Your task to perform on an android device: Show the shopping cart on walmart. Image 0: 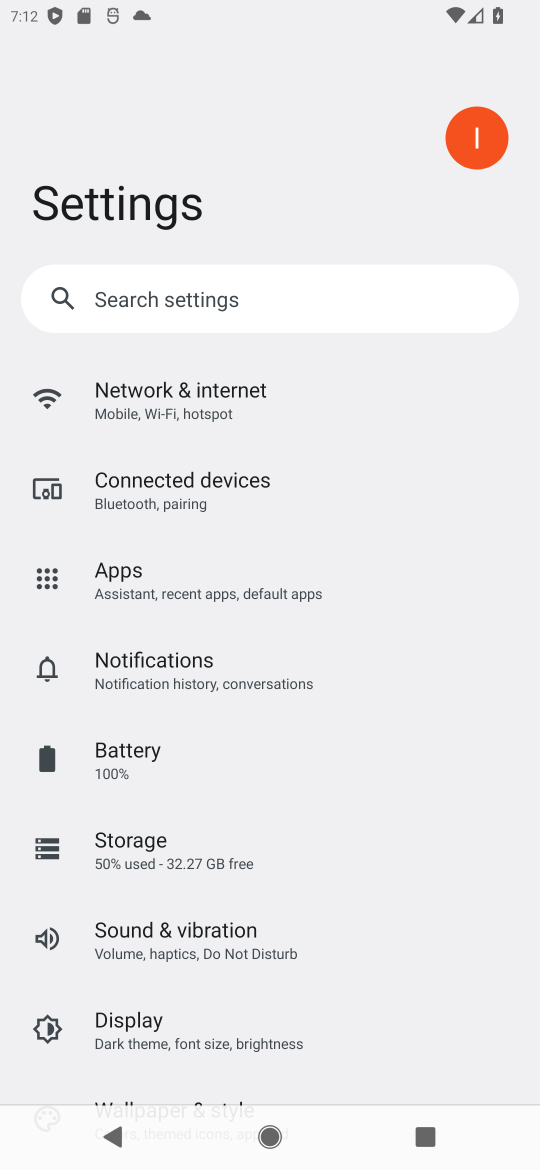
Step 0: press home button
Your task to perform on an android device: Show the shopping cart on walmart. Image 1: 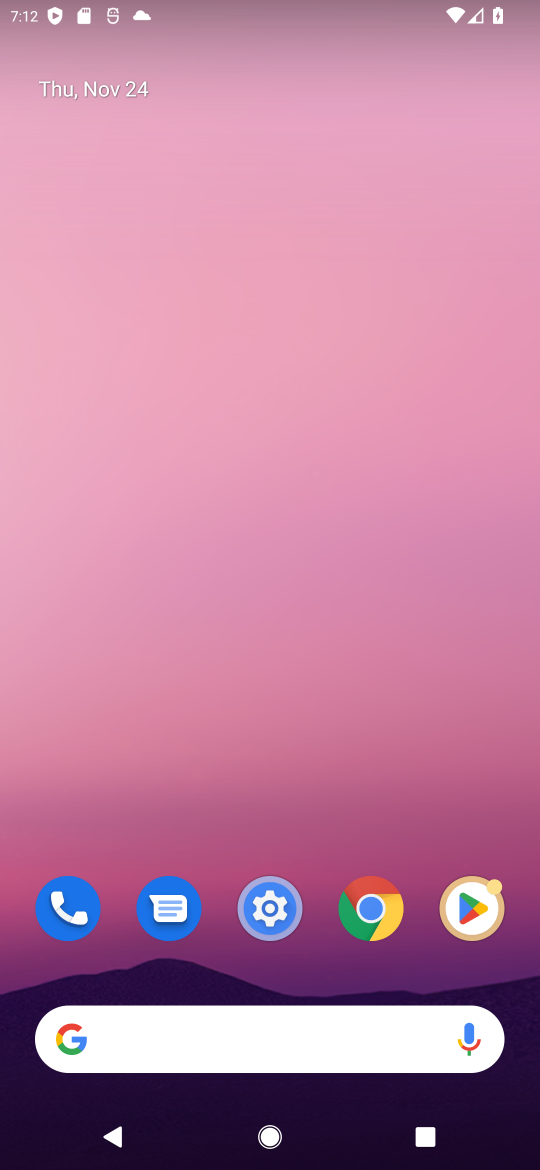
Step 1: click (147, 1019)
Your task to perform on an android device: Show the shopping cart on walmart. Image 2: 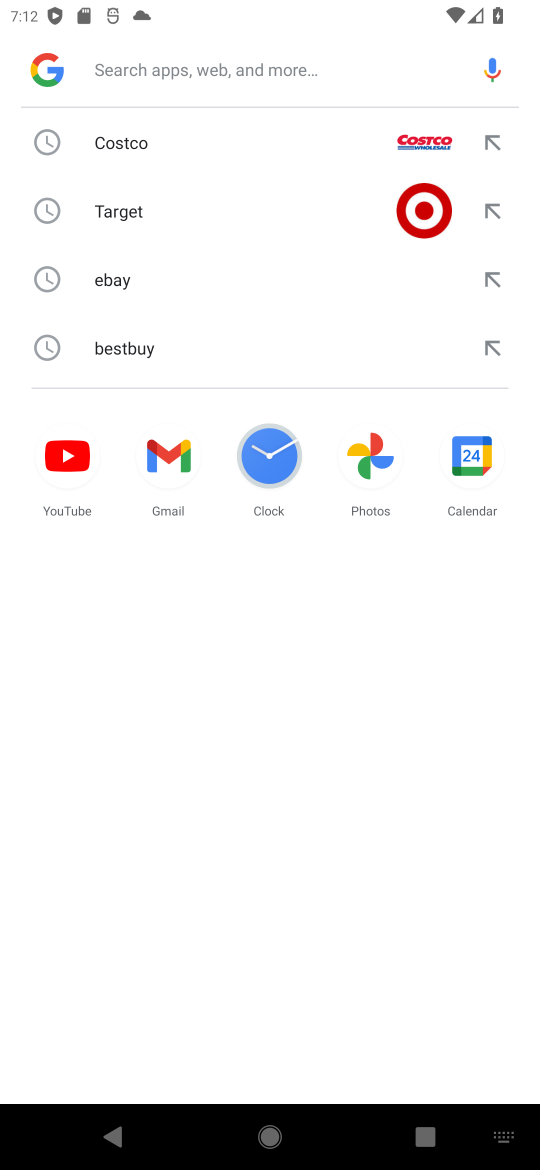
Step 2: type "walmart"
Your task to perform on an android device: Show the shopping cart on walmart. Image 3: 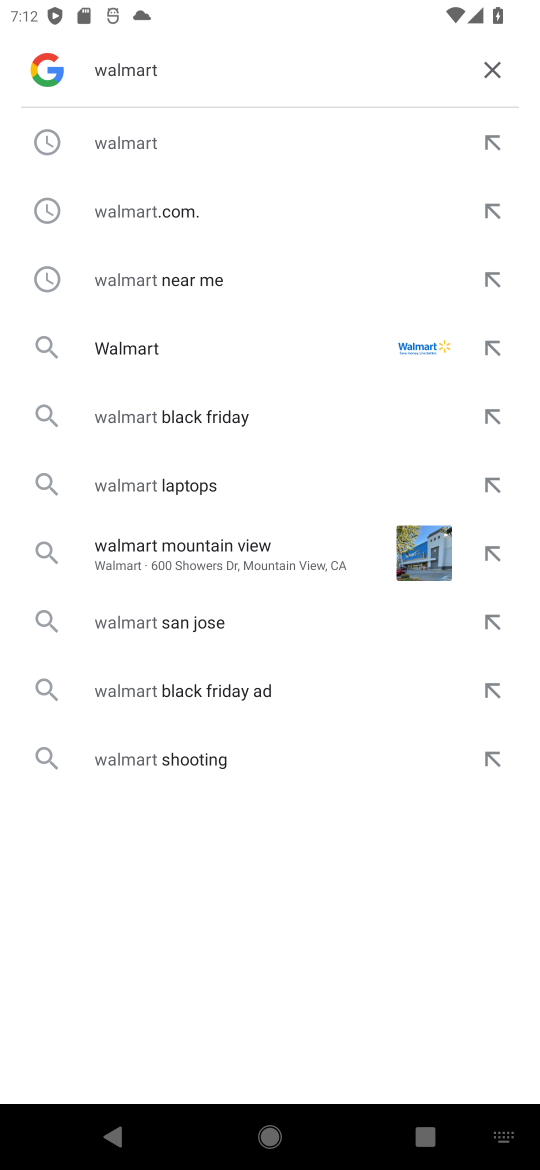
Step 3: click (118, 152)
Your task to perform on an android device: Show the shopping cart on walmart. Image 4: 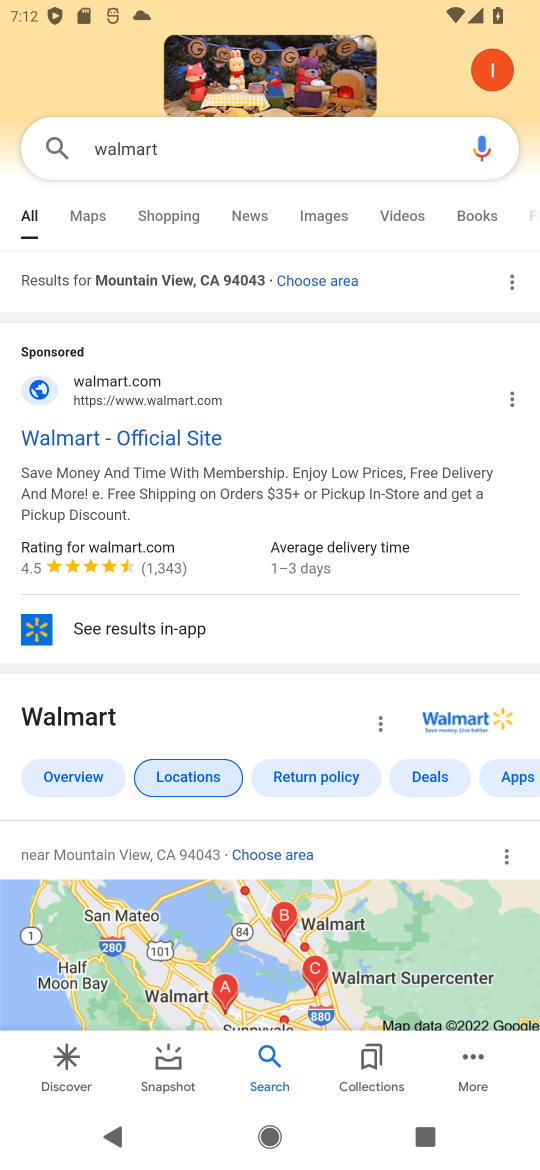
Step 4: click (156, 435)
Your task to perform on an android device: Show the shopping cart on walmart. Image 5: 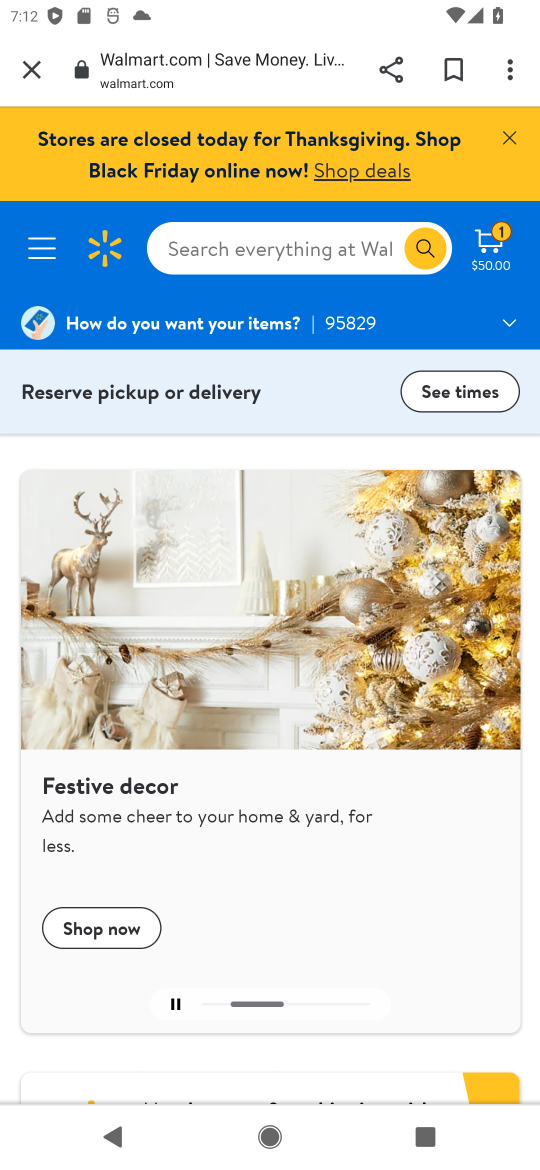
Step 5: click (200, 249)
Your task to perform on an android device: Show the shopping cart on walmart. Image 6: 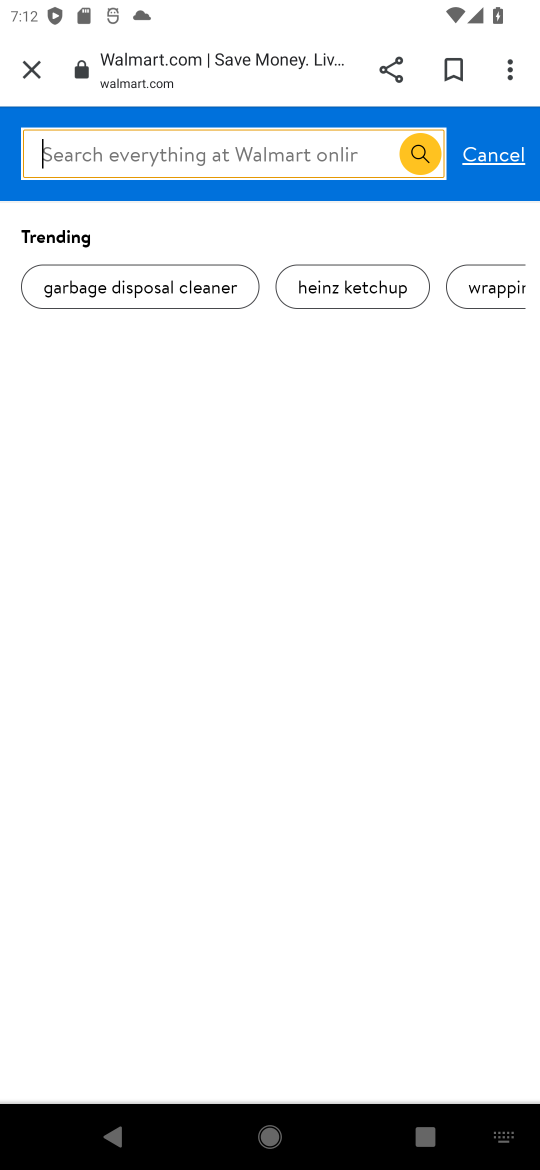
Step 6: click (495, 173)
Your task to perform on an android device: Show the shopping cart on walmart. Image 7: 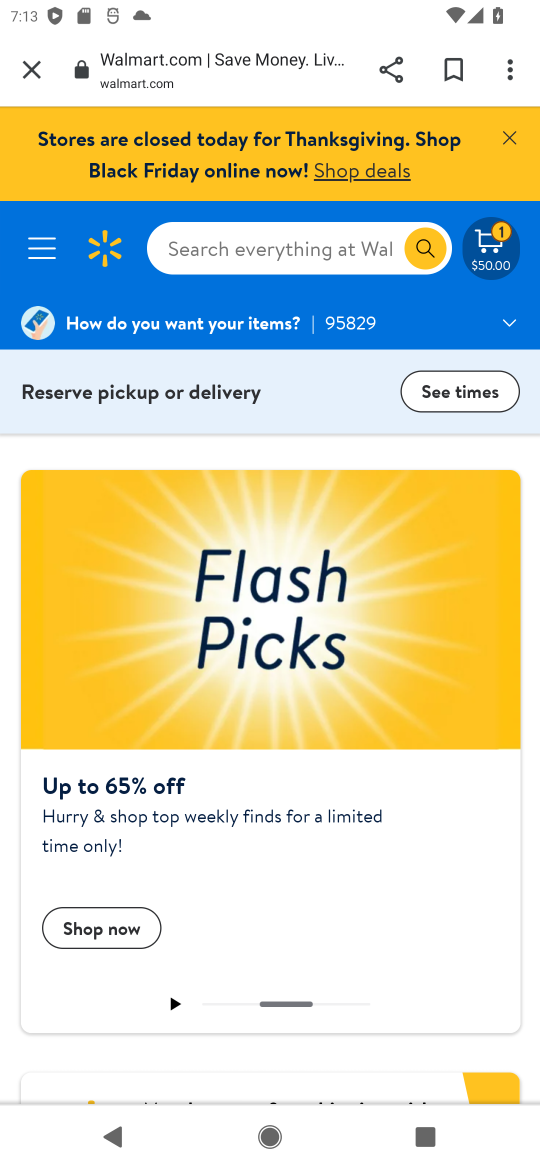
Step 7: click (511, 146)
Your task to perform on an android device: Show the shopping cart on walmart. Image 8: 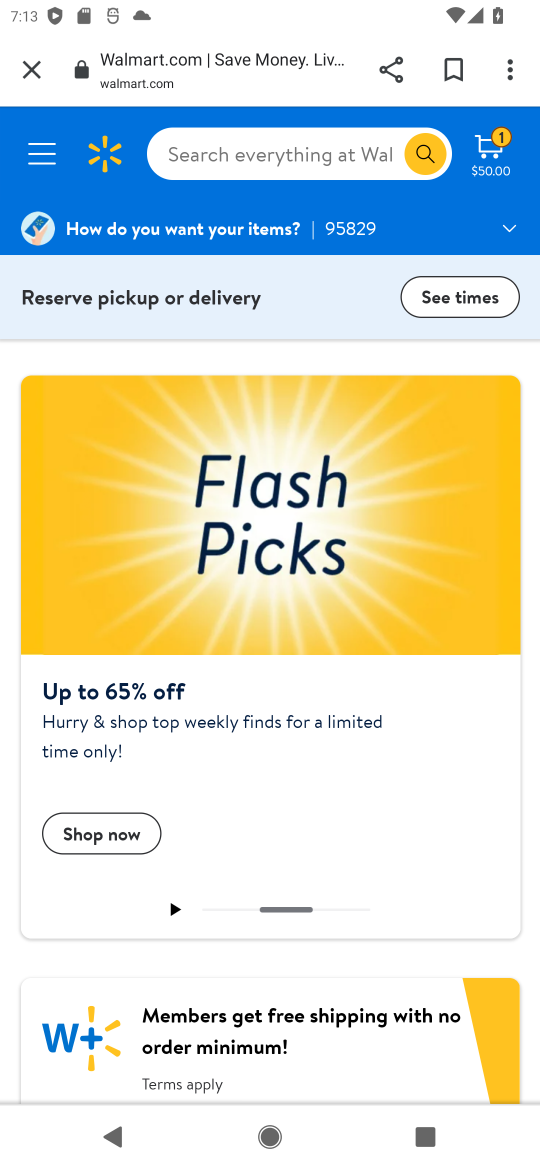
Step 8: click (299, 157)
Your task to perform on an android device: Show the shopping cart on walmart. Image 9: 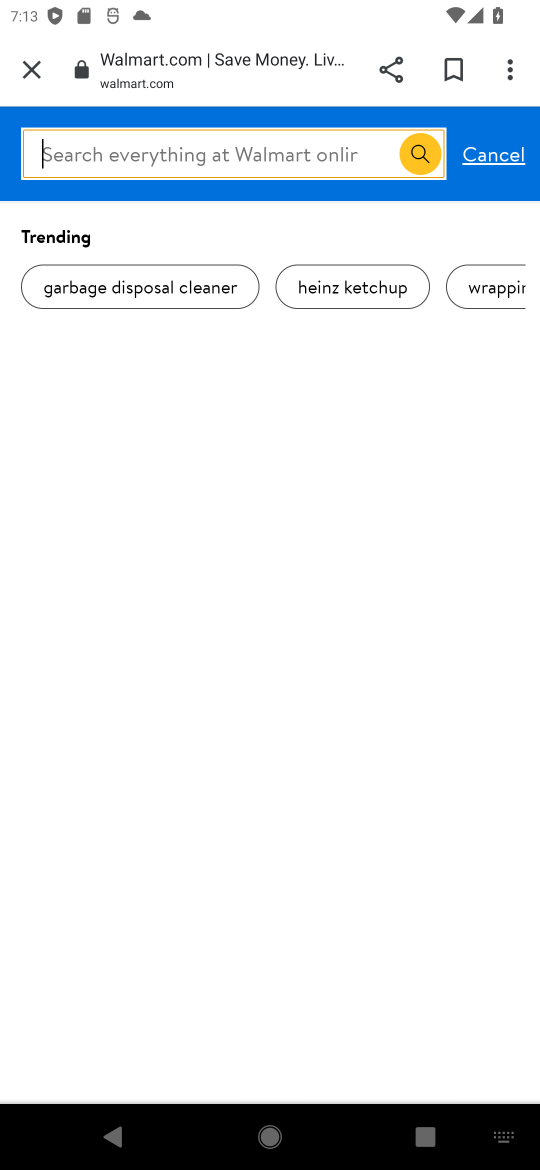
Step 9: click (493, 146)
Your task to perform on an android device: Show the shopping cart on walmart. Image 10: 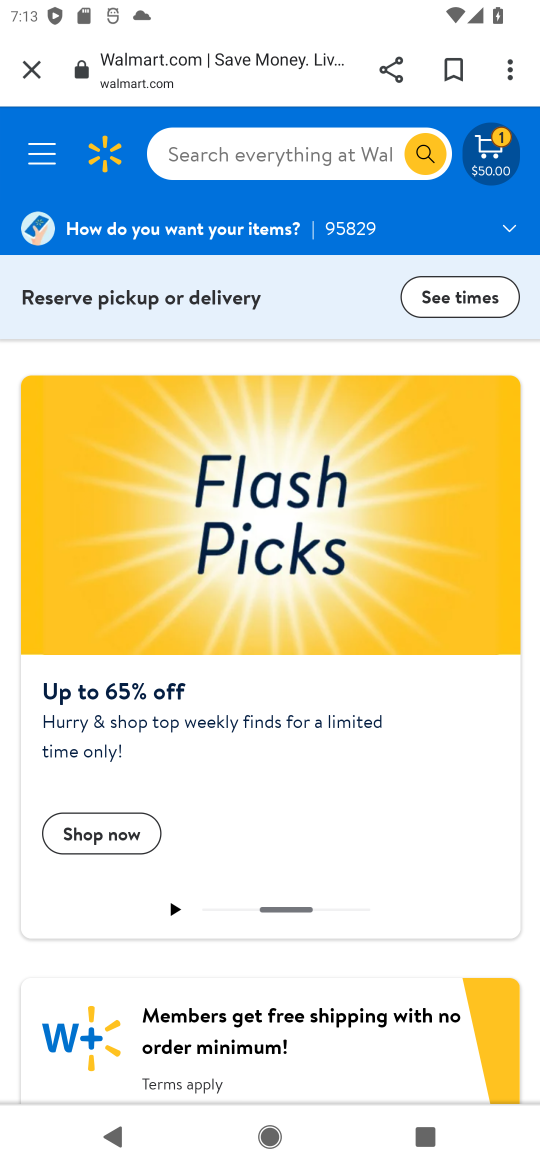
Step 10: click (493, 146)
Your task to perform on an android device: Show the shopping cart on walmart. Image 11: 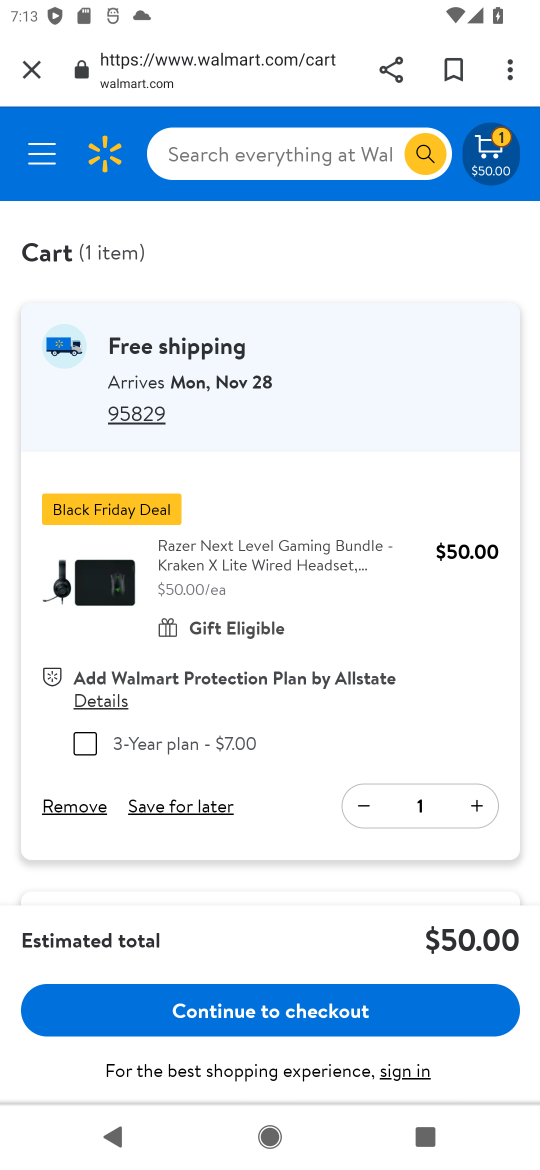
Step 11: click (95, 819)
Your task to perform on an android device: Show the shopping cart on walmart. Image 12: 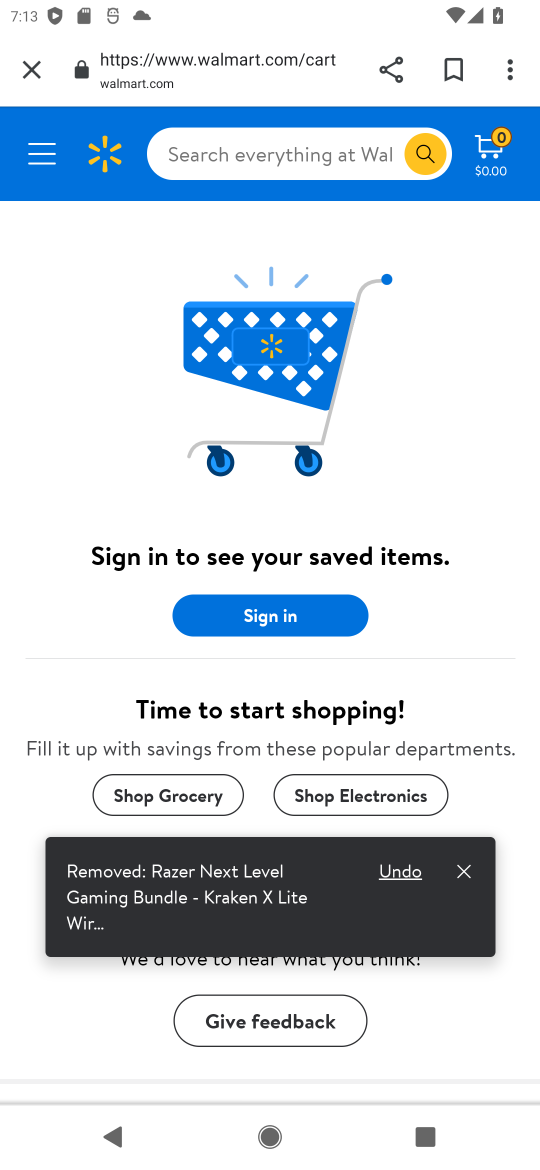
Step 12: task complete